Your task to perform on an android device: open chrome privacy settings Image 0: 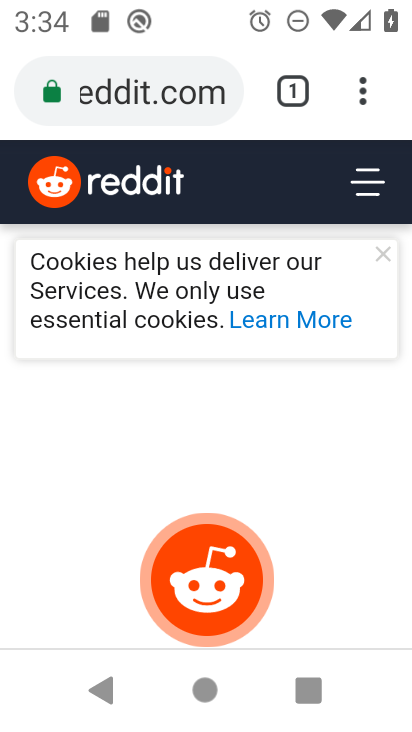
Step 0: press home button
Your task to perform on an android device: open chrome privacy settings Image 1: 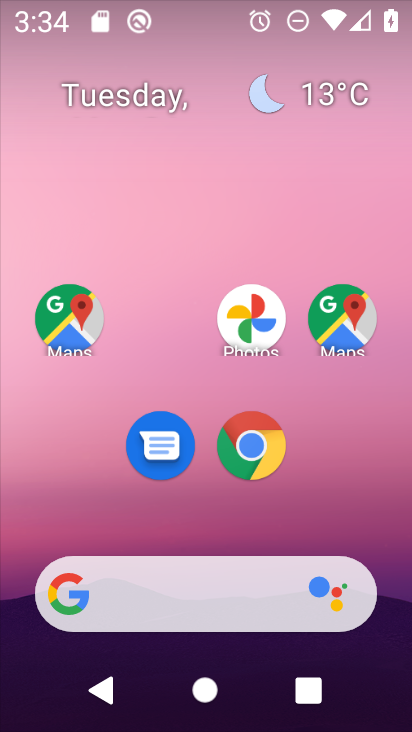
Step 1: drag from (385, 555) to (376, 219)
Your task to perform on an android device: open chrome privacy settings Image 2: 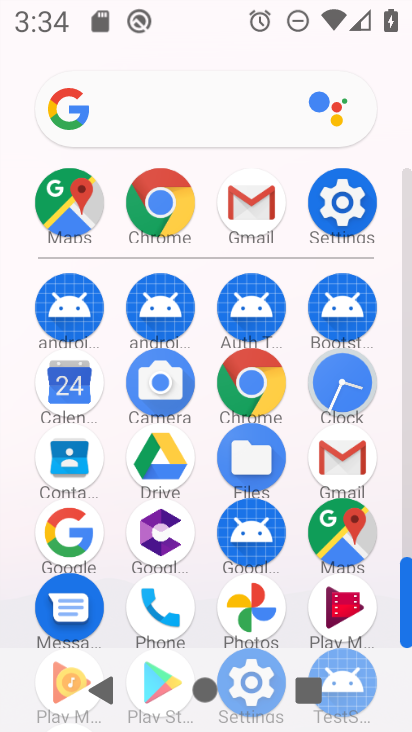
Step 2: click (265, 409)
Your task to perform on an android device: open chrome privacy settings Image 3: 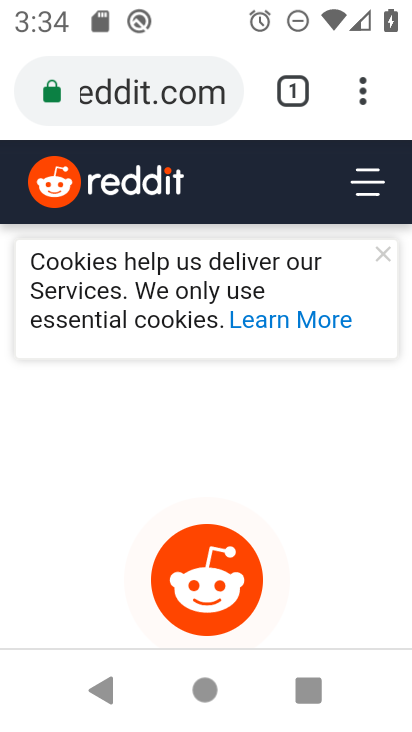
Step 3: click (364, 102)
Your task to perform on an android device: open chrome privacy settings Image 4: 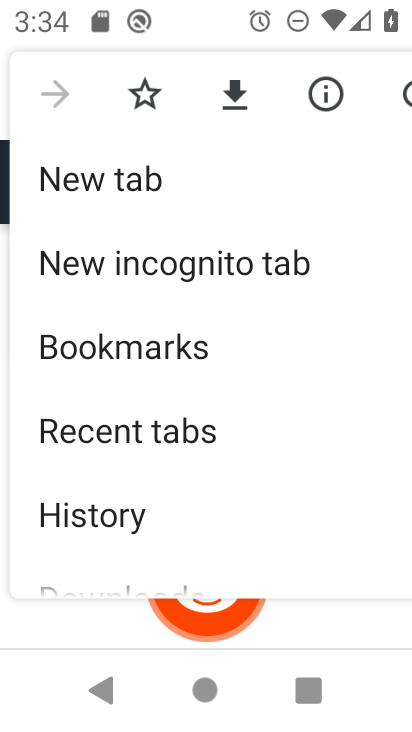
Step 4: drag from (305, 472) to (305, 403)
Your task to perform on an android device: open chrome privacy settings Image 5: 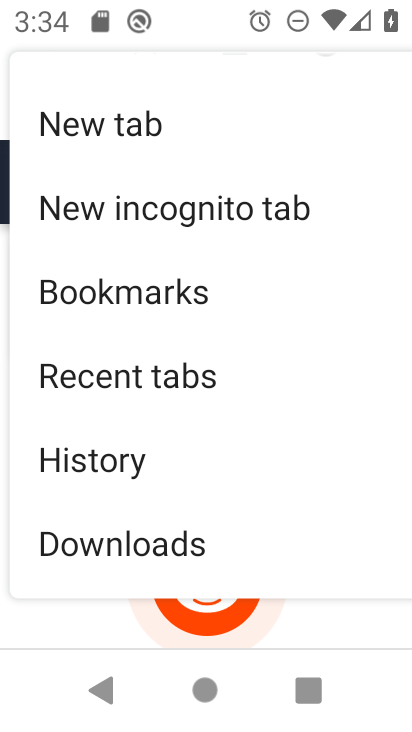
Step 5: drag from (321, 491) to (325, 408)
Your task to perform on an android device: open chrome privacy settings Image 6: 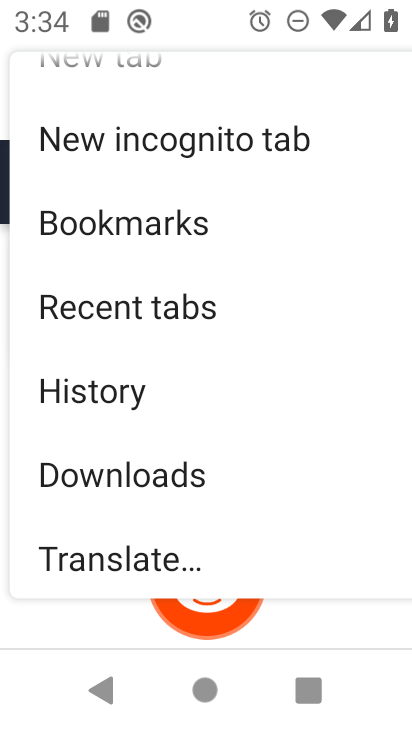
Step 6: drag from (331, 502) to (331, 418)
Your task to perform on an android device: open chrome privacy settings Image 7: 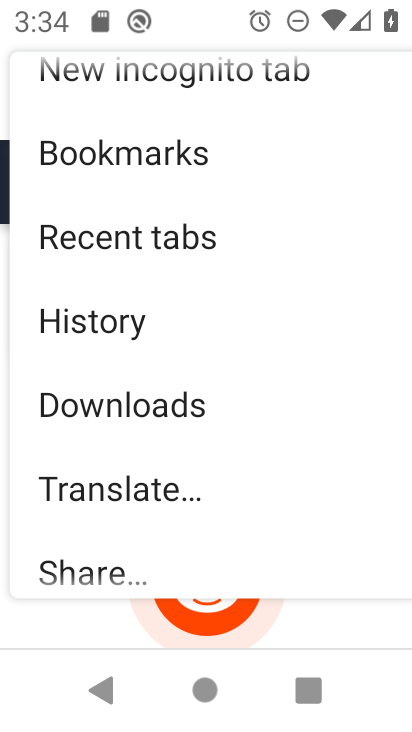
Step 7: drag from (334, 482) to (335, 385)
Your task to perform on an android device: open chrome privacy settings Image 8: 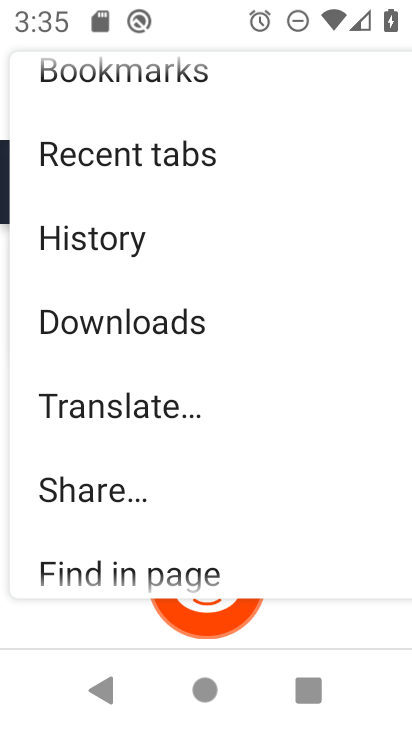
Step 8: drag from (316, 499) to (321, 422)
Your task to perform on an android device: open chrome privacy settings Image 9: 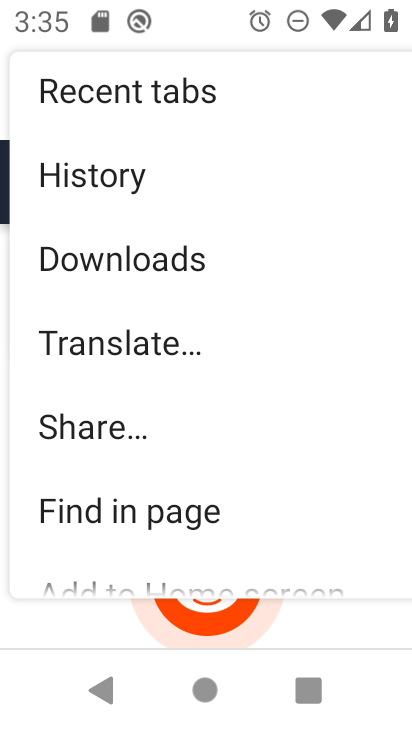
Step 9: drag from (309, 511) to (315, 421)
Your task to perform on an android device: open chrome privacy settings Image 10: 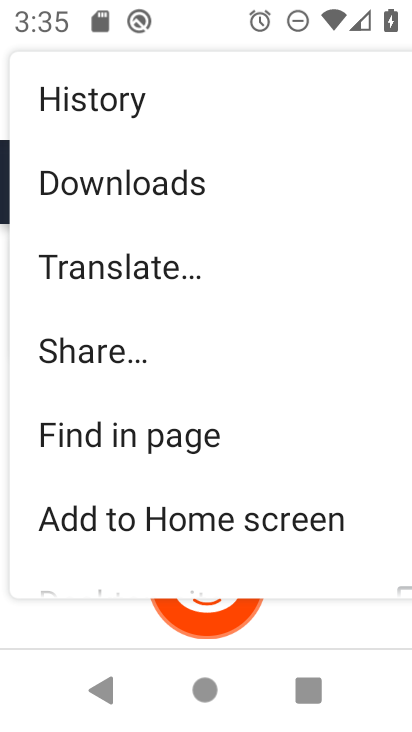
Step 10: drag from (323, 537) to (326, 432)
Your task to perform on an android device: open chrome privacy settings Image 11: 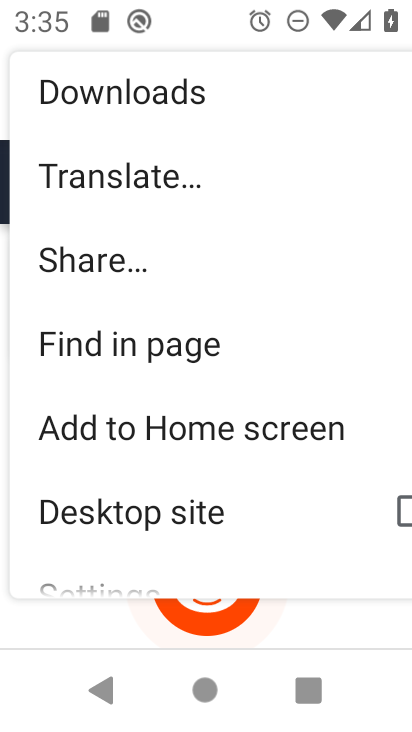
Step 11: drag from (324, 520) to (328, 399)
Your task to perform on an android device: open chrome privacy settings Image 12: 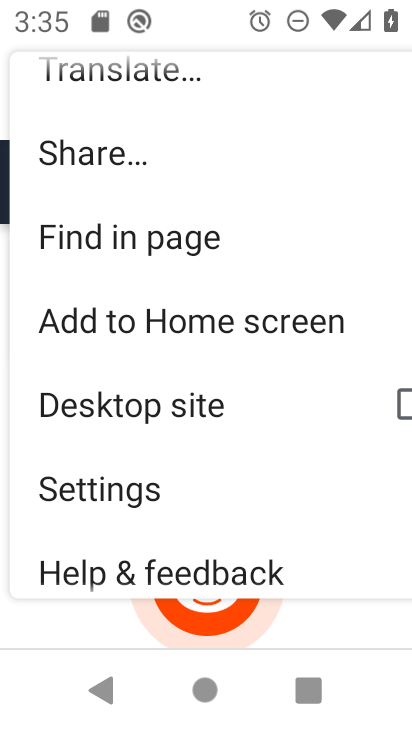
Step 12: click (183, 497)
Your task to perform on an android device: open chrome privacy settings Image 13: 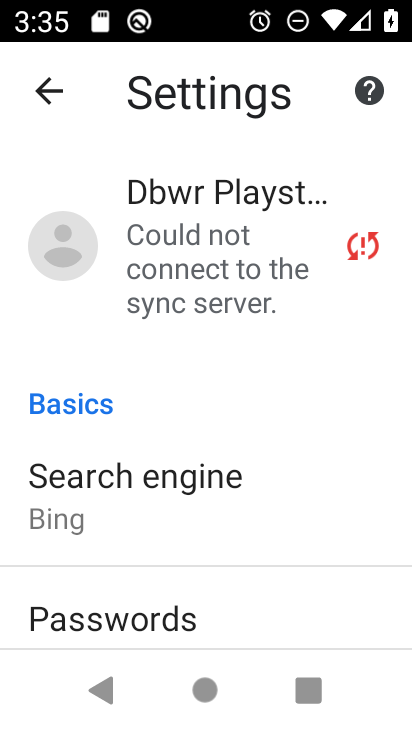
Step 13: drag from (325, 555) to (324, 464)
Your task to perform on an android device: open chrome privacy settings Image 14: 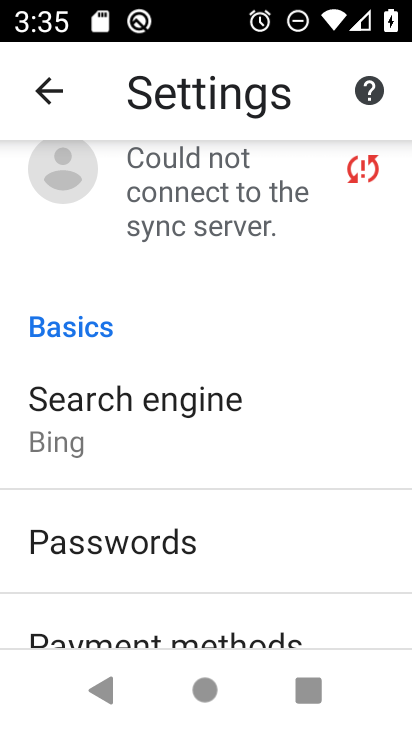
Step 14: drag from (326, 542) to (329, 458)
Your task to perform on an android device: open chrome privacy settings Image 15: 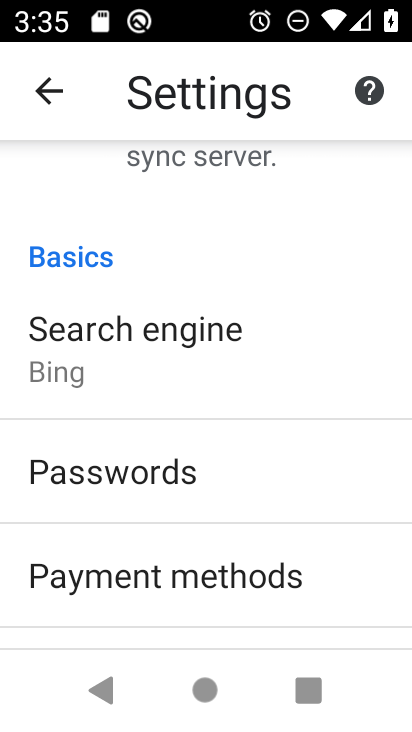
Step 15: drag from (331, 549) to (333, 469)
Your task to perform on an android device: open chrome privacy settings Image 16: 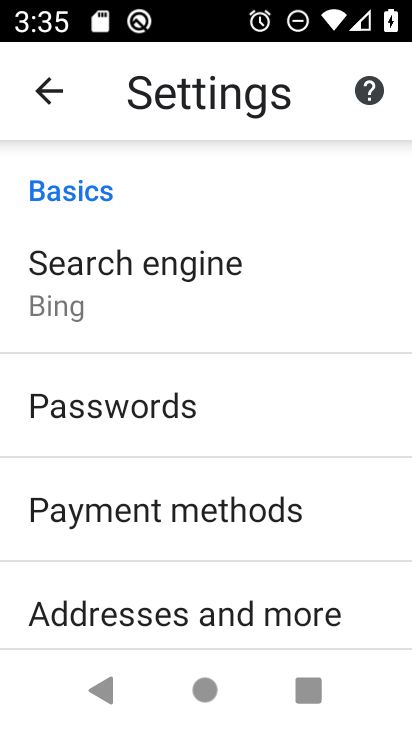
Step 16: drag from (333, 569) to (336, 481)
Your task to perform on an android device: open chrome privacy settings Image 17: 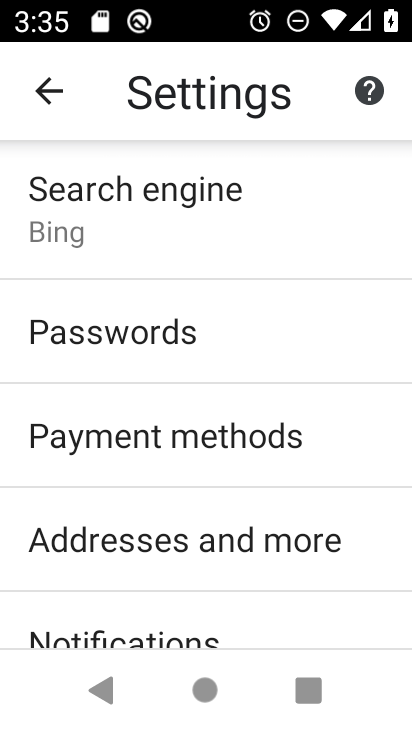
Step 17: drag from (331, 577) to (341, 496)
Your task to perform on an android device: open chrome privacy settings Image 18: 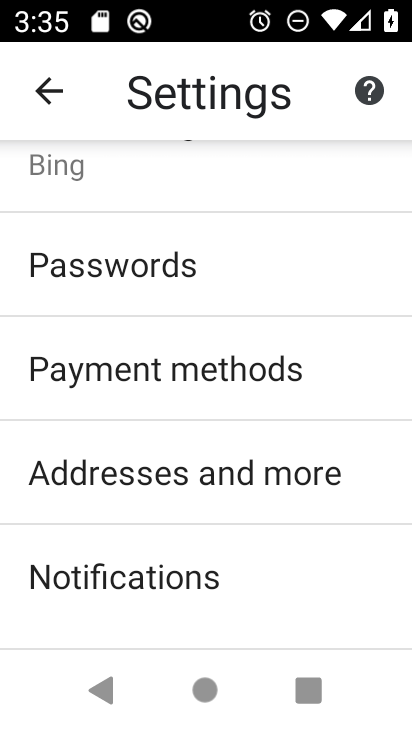
Step 18: drag from (343, 582) to (344, 501)
Your task to perform on an android device: open chrome privacy settings Image 19: 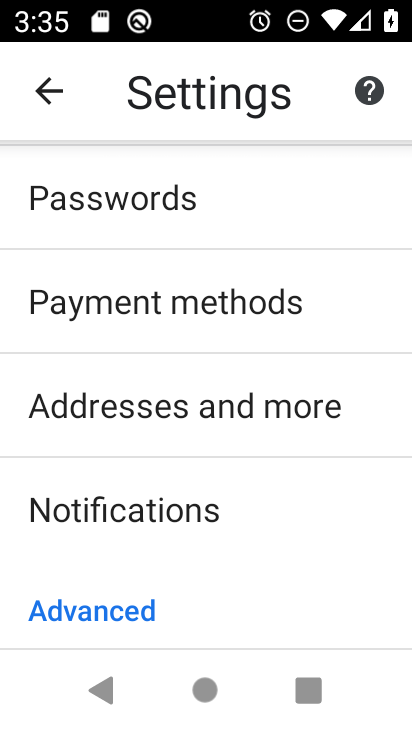
Step 19: drag from (342, 577) to (346, 494)
Your task to perform on an android device: open chrome privacy settings Image 20: 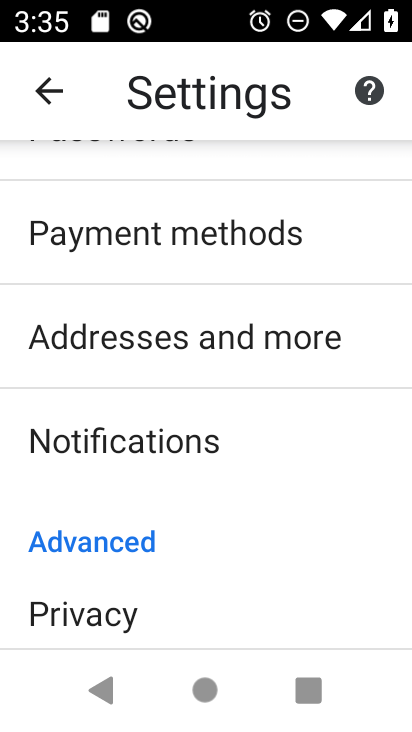
Step 20: drag from (351, 554) to (355, 498)
Your task to perform on an android device: open chrome privacy settings Image 21: 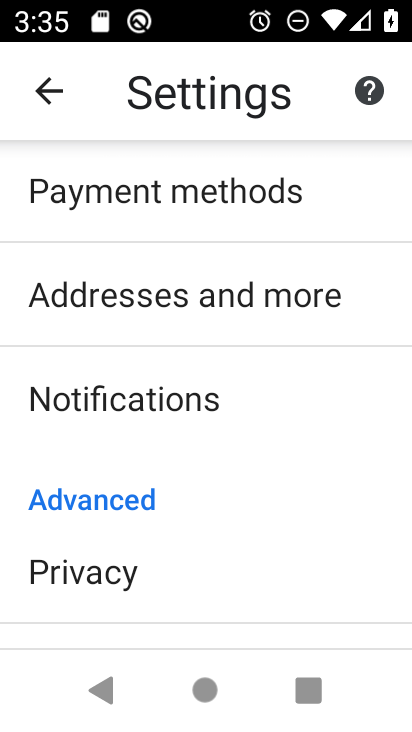
Step 21: drag from (350, 558) to (349, 462)
Your task to perform on an android device: open chrome privacy settings Image 22: 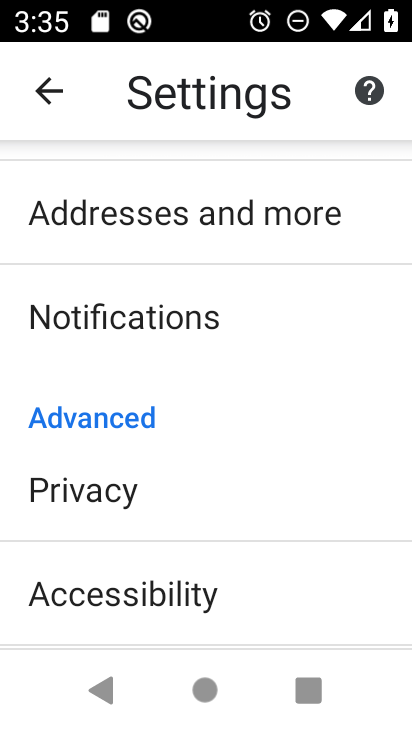
Step 22: drag from (343, 581) to (349, 499)
Your task to perform on an android device: open chrome privacy settings Image 23: 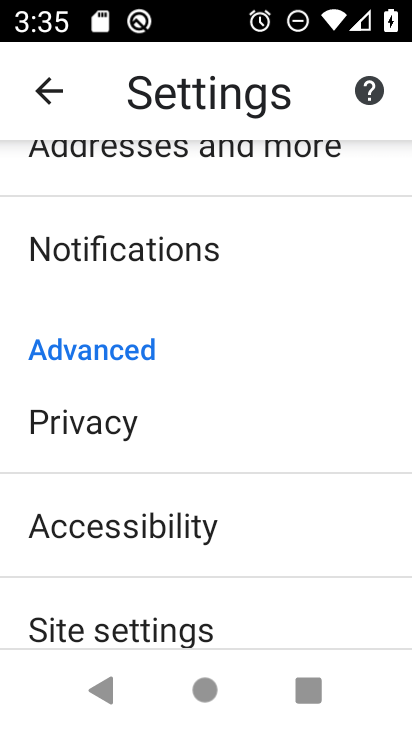
Step 23: click (163, 432)
Your task to perform on an android device: open chrome privacy settings Image 24: 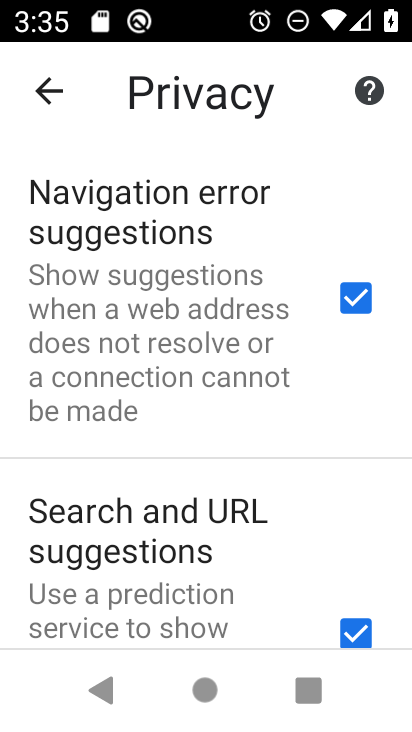
Step 24: task complete